Your task to perform on an android device: Turn on the flashlight Image 0: 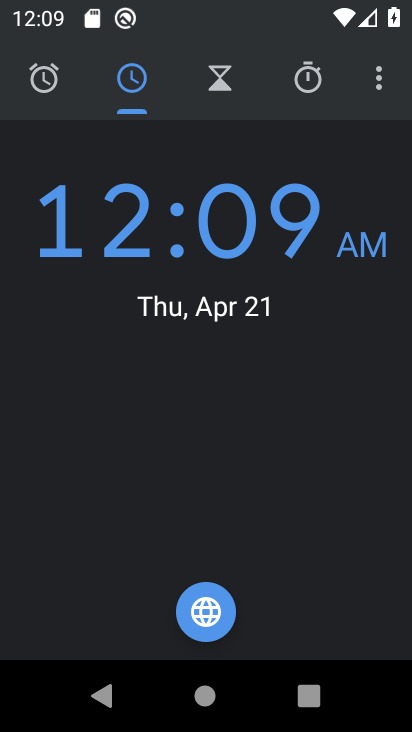
Step 0: press home button
Your task to perform on an android device: Turn on the flashlight Image 1: 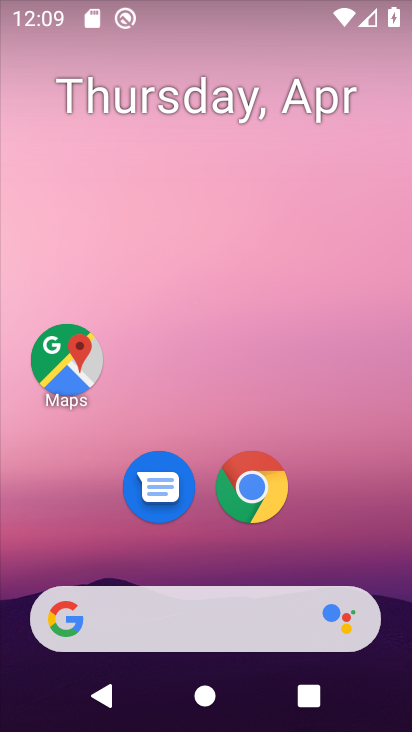
Step 1: drag from (205, 667) to (221, 134)
Your task to perform on an android device: Turn on the flashlight Image 2: 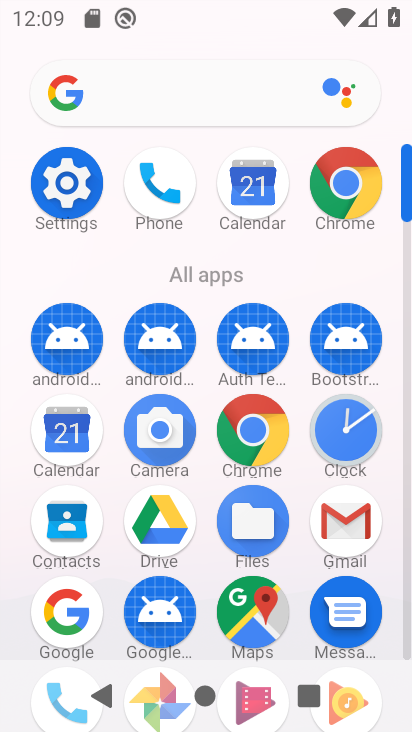
Step 2: click (62, 193)
Your task to perform on an android device: Turn on the flashlight Image 3: 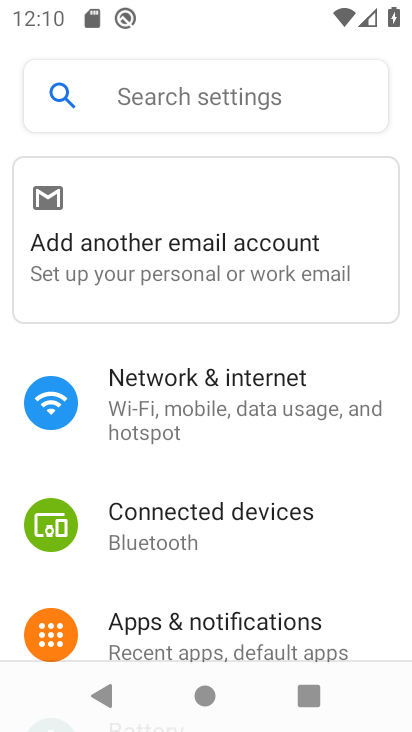
Step 3: click (158, 95)
Your task to perform on an android device: Turn on the flashlight Image 4: 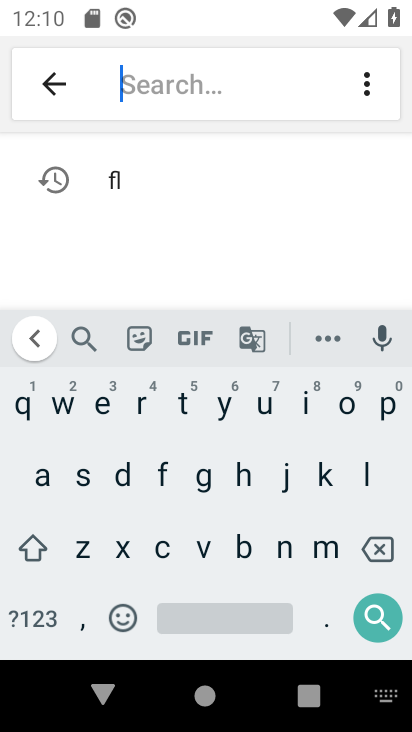
Step 4: click (124, 163)
Your task to perform on an android device: Turn on the flashlight Image 5: 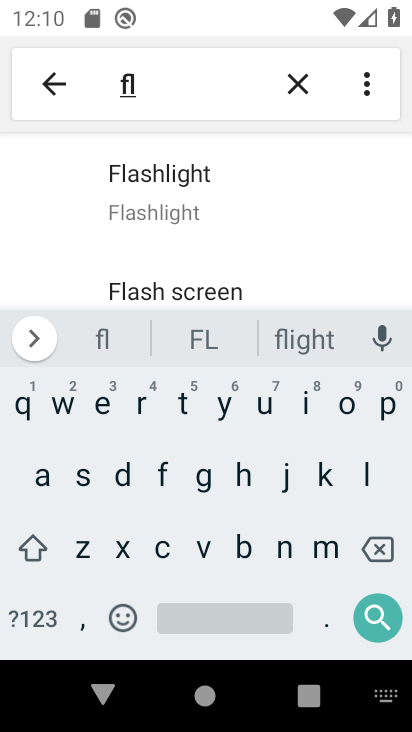
Step 5: click (181, 202)
Your task to perform on an android device: Turn on the flashlight Image 6: 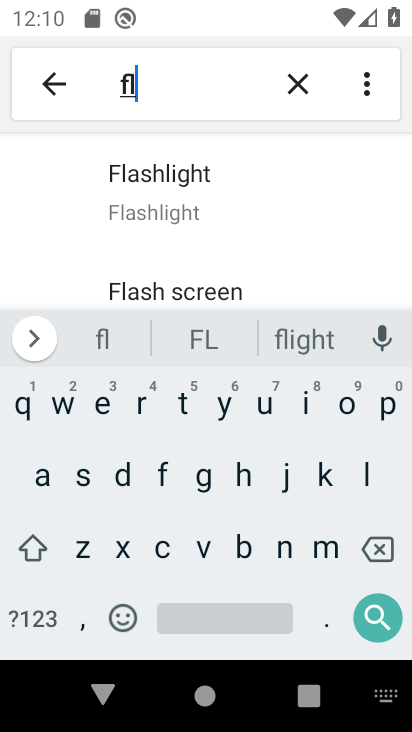
Step 6: task complete